Your task to perform on an android device: Check the weather Image 0: 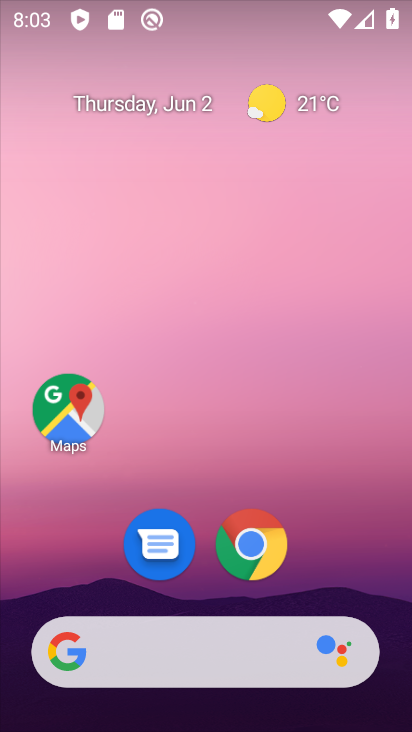
Step 0: click (193, 664)
Your task to perform on an android device: Check the weather Image 1: 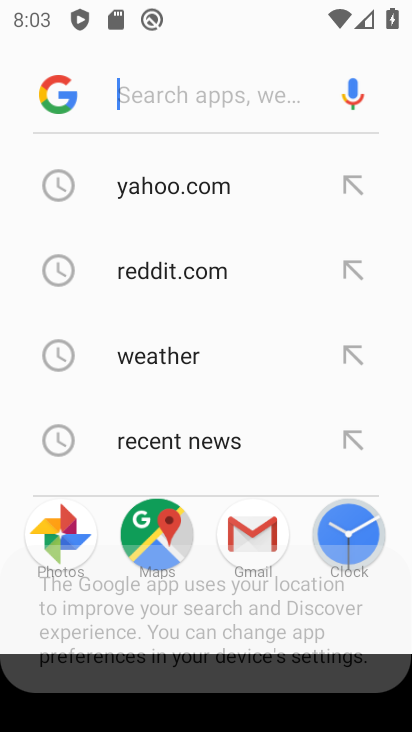
Step 1: click (199, 367)
Your task to perform on an android device: Check the weather Image 2: 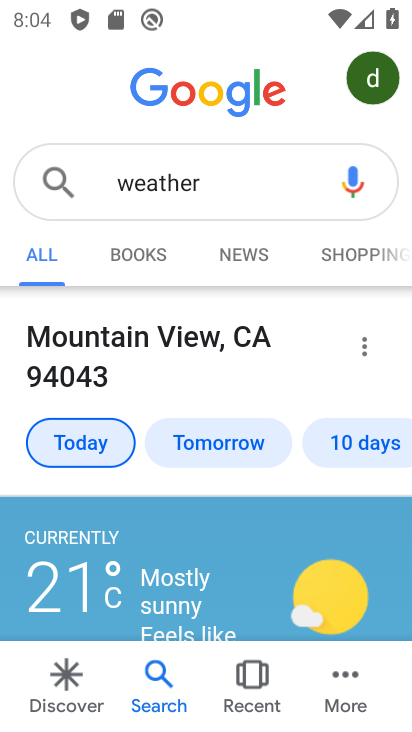
Step 2: task complete